Your task to perform on an android device: search for starred emails in the gmail app Image 0: 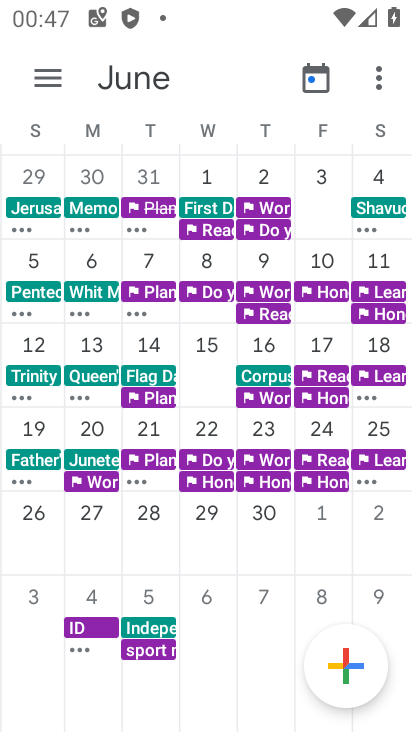
Step 0: press home button
Your task to perform on an android device: search for starred emails in the gmail app Image 1: 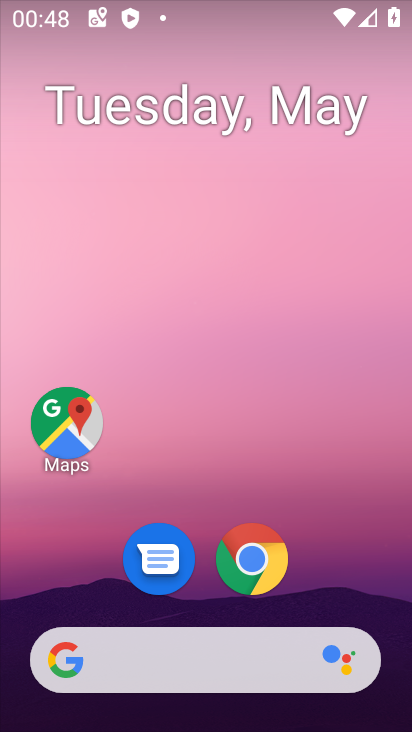
Step 1: drag from (318, 455) to (279, 83)
Your task to perform on an android device: search for starred emails in the gmail app Image 2: 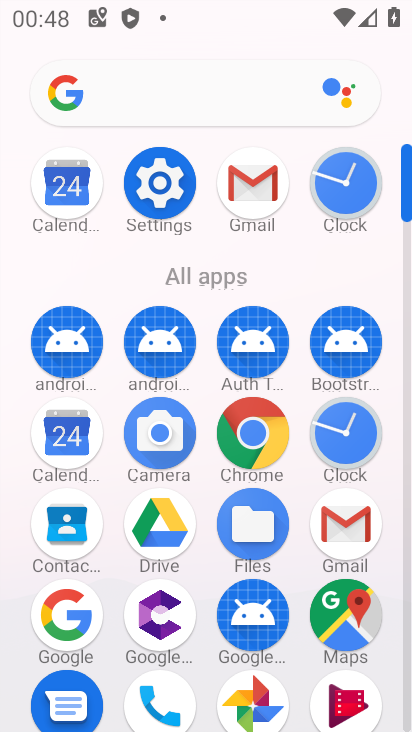
Step 2: click (349, 510)
Your task to perform on an android device: search for starred emails in the gmail app Image 3: 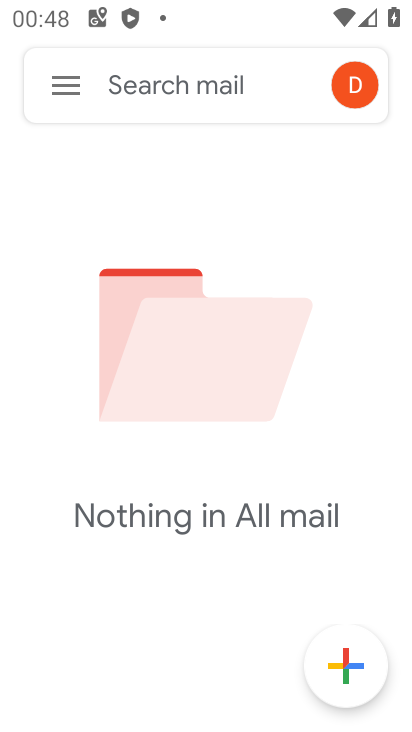
Step 3: click (59, 76)
Your task to perform on an android device: search for starred emails in the gmail app Image 4: 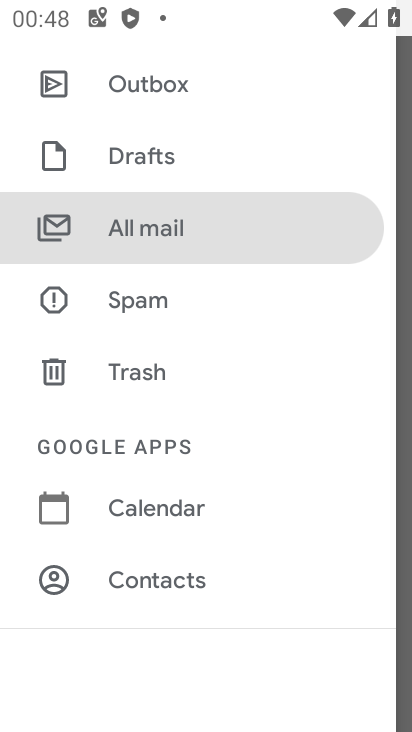
Step 4: drag from (258, 111) to (265, 484)
Your task to perform on an android device: search for starred emails in the gmail app Image 5: 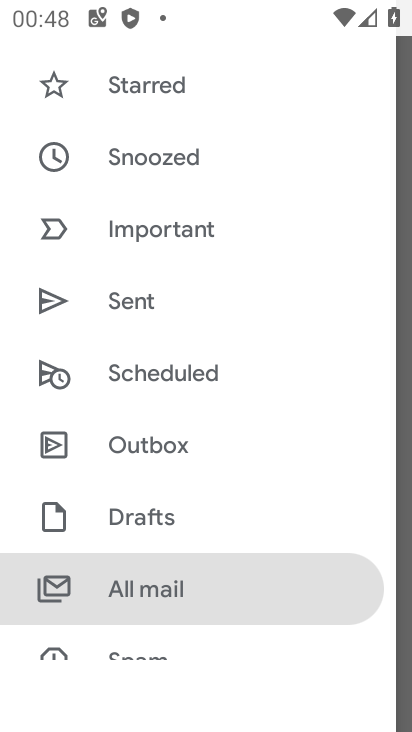
Step 5: click (266, 80)
Your task to perform on an android device: search for starred emails in the gmail app Image 6: 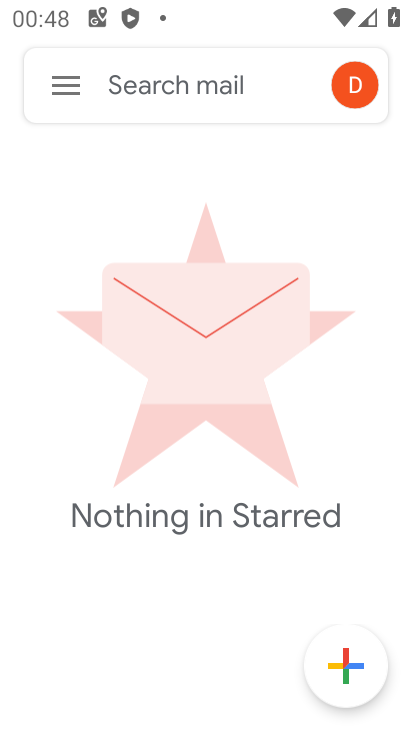
Step 6: task complete